Your task to perform on an android device: check battery use Image 0: 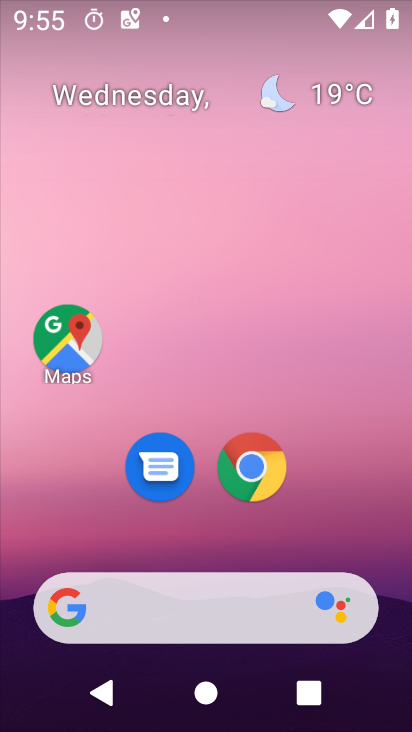
Step 0: drag from (319, 538) to (169, 19)
Your task to perform on an android device: check battery use Image 1: 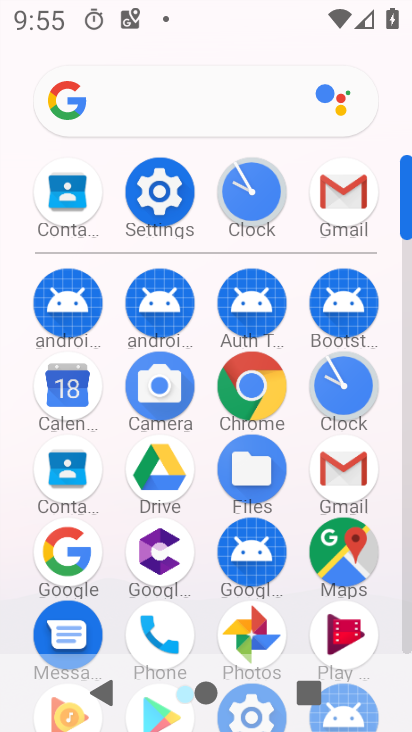
Step 1: click (159, 180)
Your task to perform on an android device: check battery use Image 2: 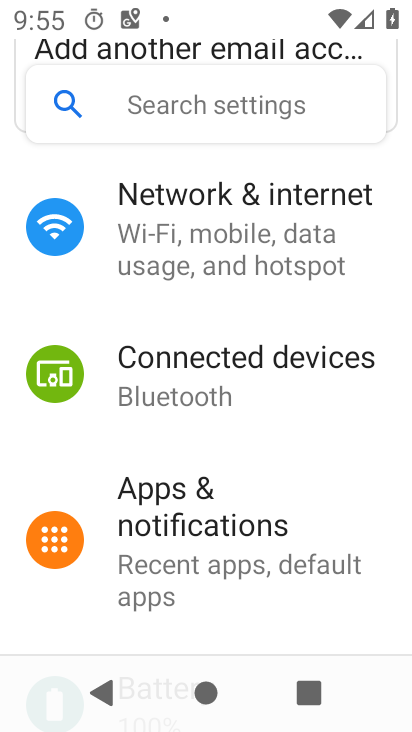
Step 2: drag from (261, 554) to (254, 153)
Your task to perform on an android device: check battery use Image 3: 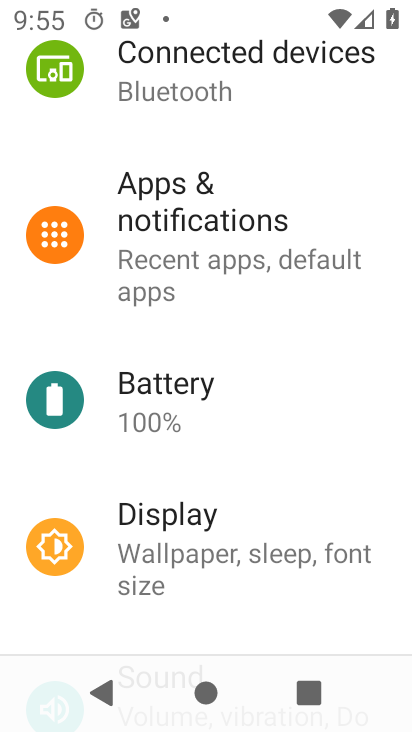
Step 3: click (242, 421)
Your task to perform on an android device: check battery use Image 4: 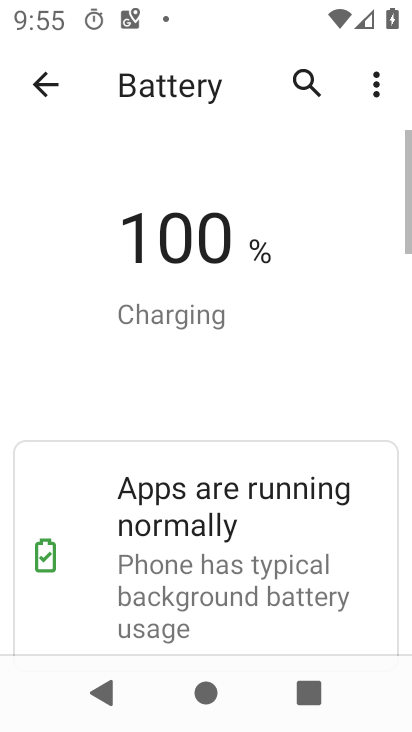
Step 4: click (375, 86)
Your task to perform on an android device: check battery use Image 5: 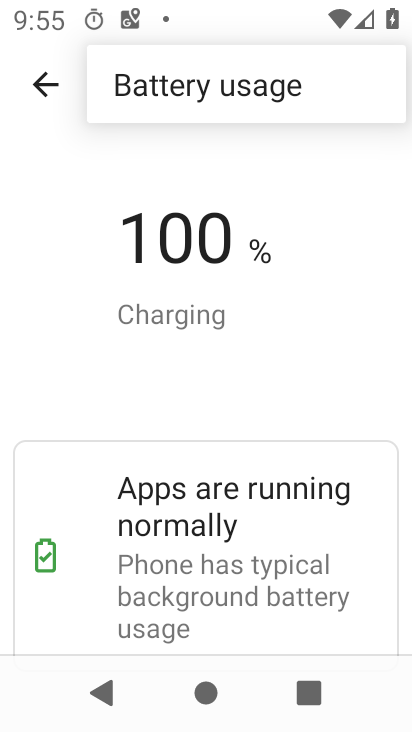
Step 5: click (321, 75)
Your task to perform on an android device: check battery use Image 6: 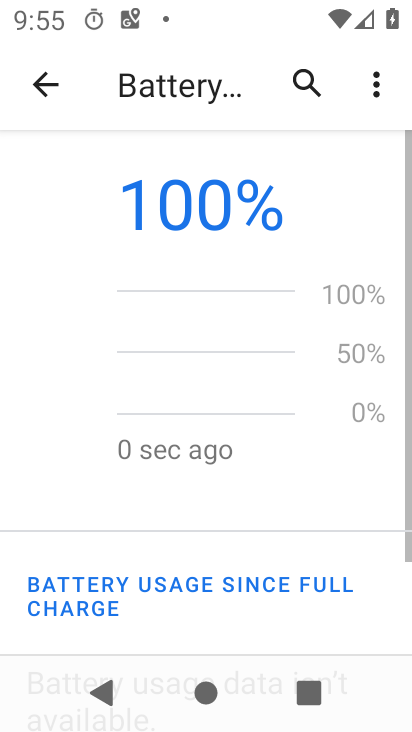
Step 6: task complete